Your task to perform on an android device: Add usb-a to usb-b to the cart on target.com Image 0: 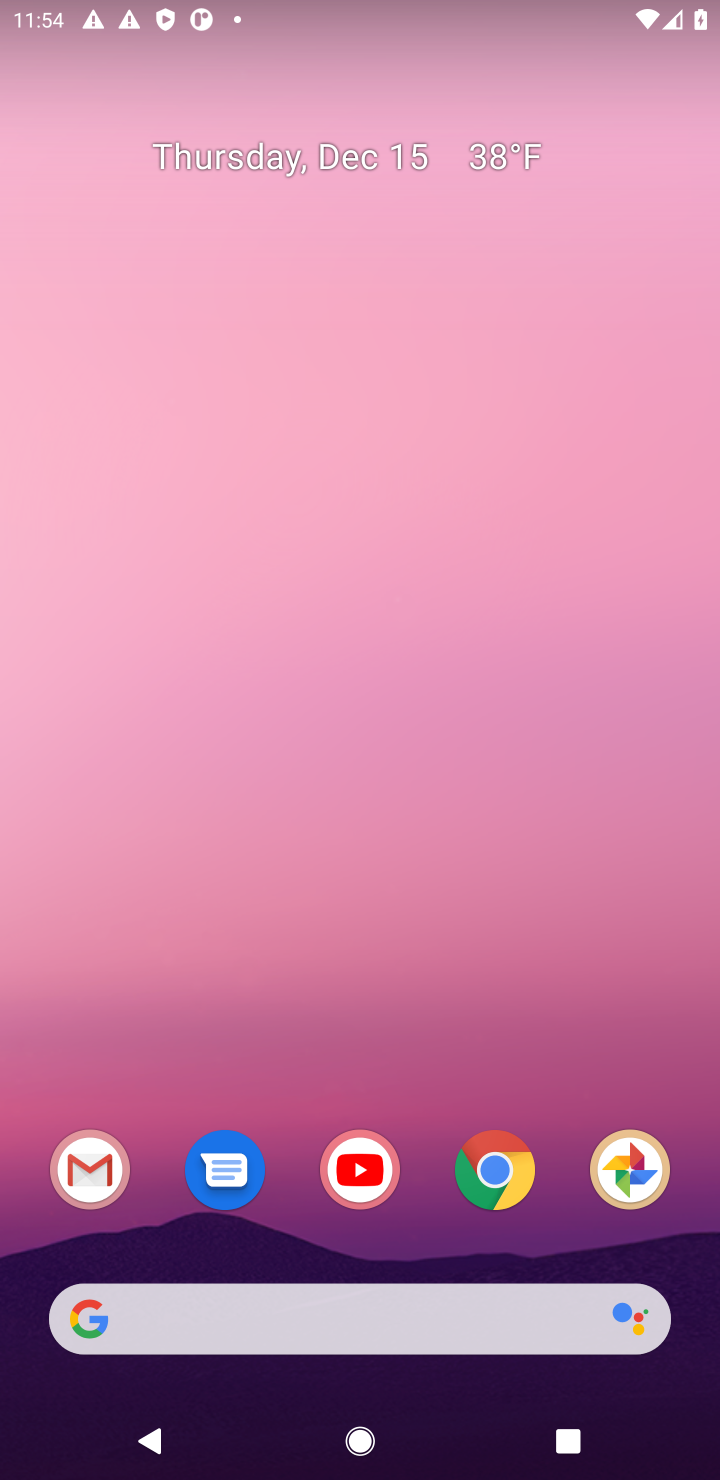
Step 0: click (487, 1177)
Your task to perform on an android device: Add usb-a to usb-b to the cart on target.com Image 1: 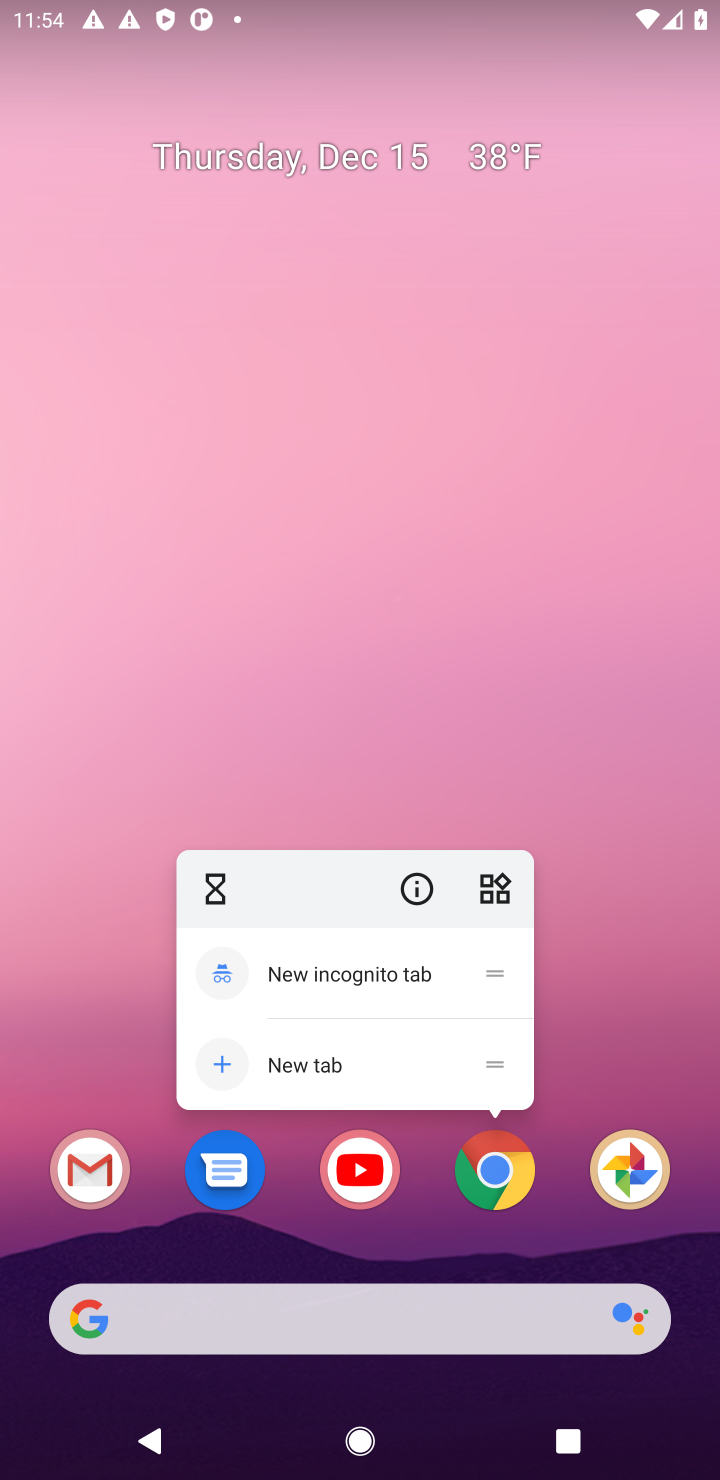
Step 1: click (488, 1175)
Your task to perform on an android device: Add usb-a to usb-b to the cart on target.com Image 2: 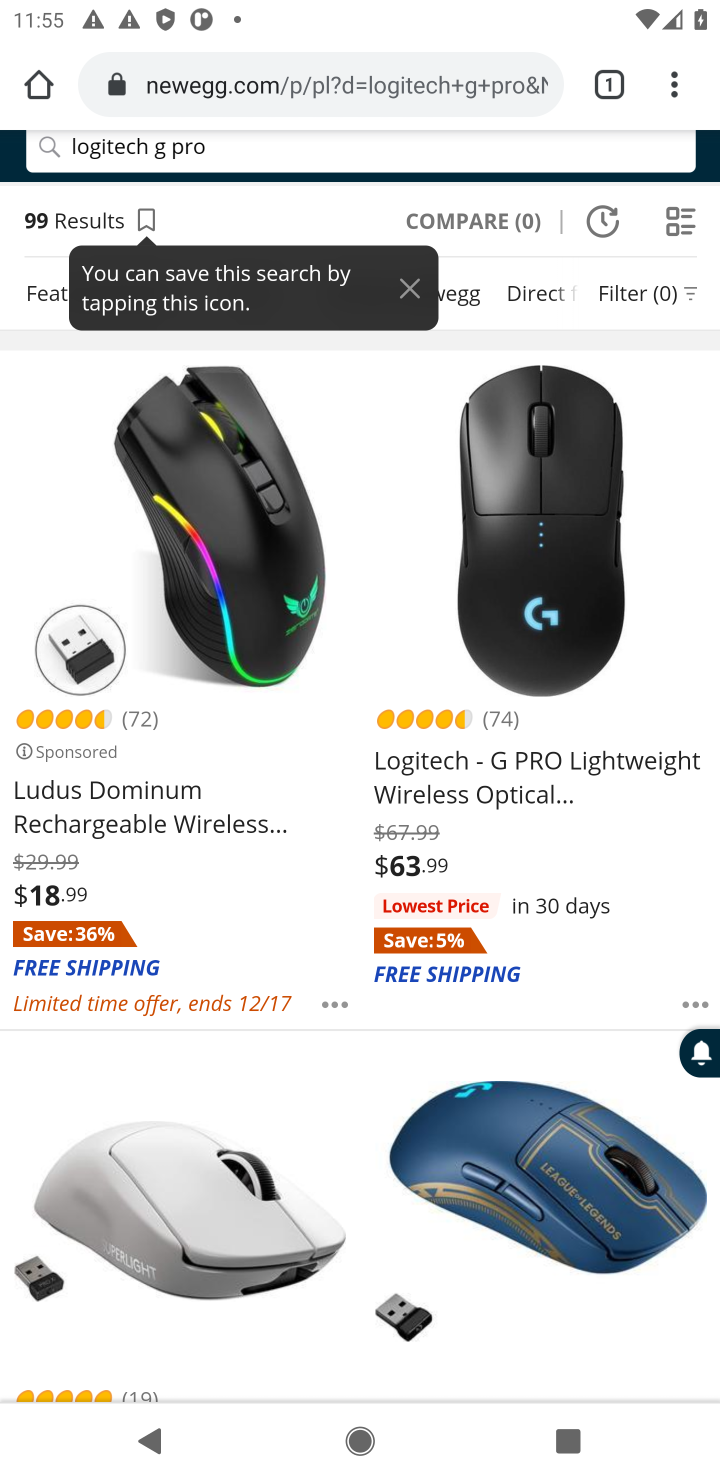
Step 2: click (269, 87)
Your task to perform on an android device: Add usb-a to usb-b to the cart on target.com Image 3: 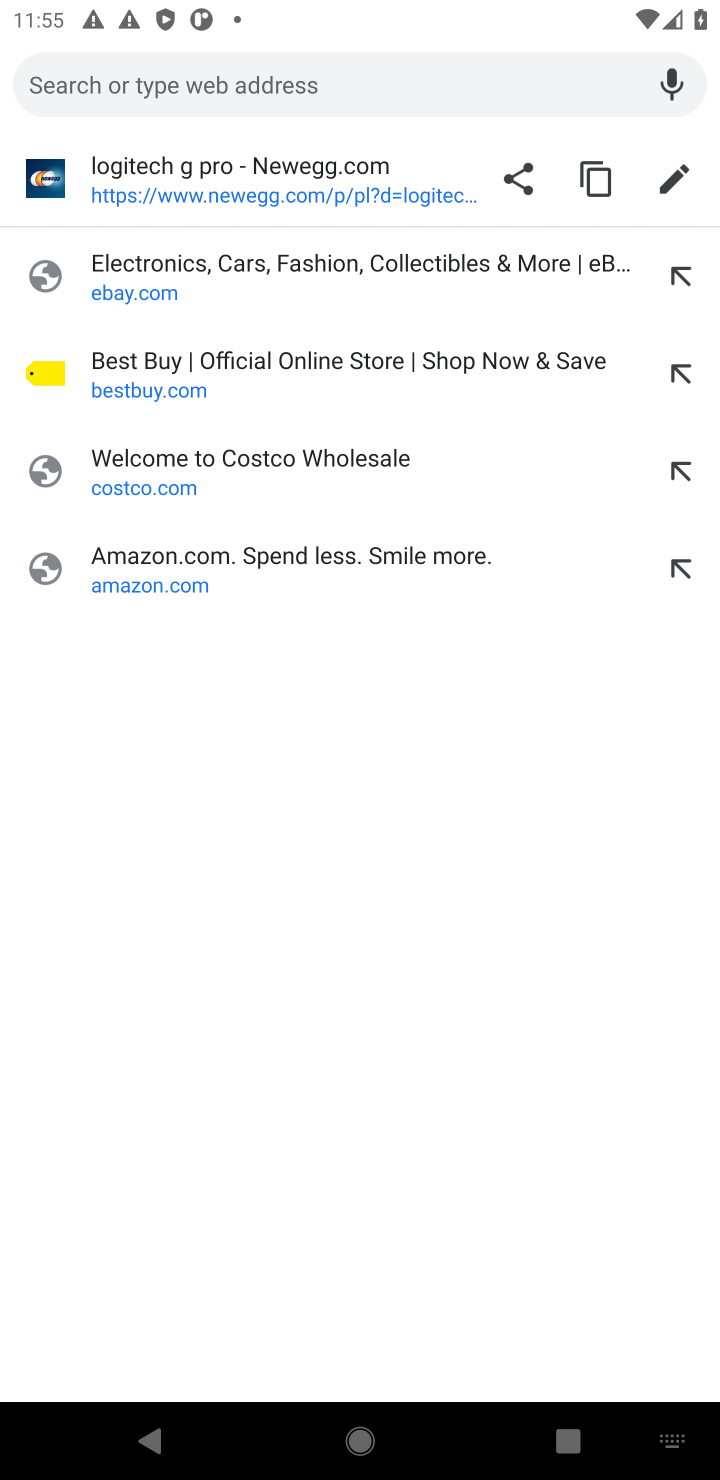
Step 3: type "target.com"
Your task to perform on an android device: Add usb-a to usb-b to the cart on target.com Image 4: 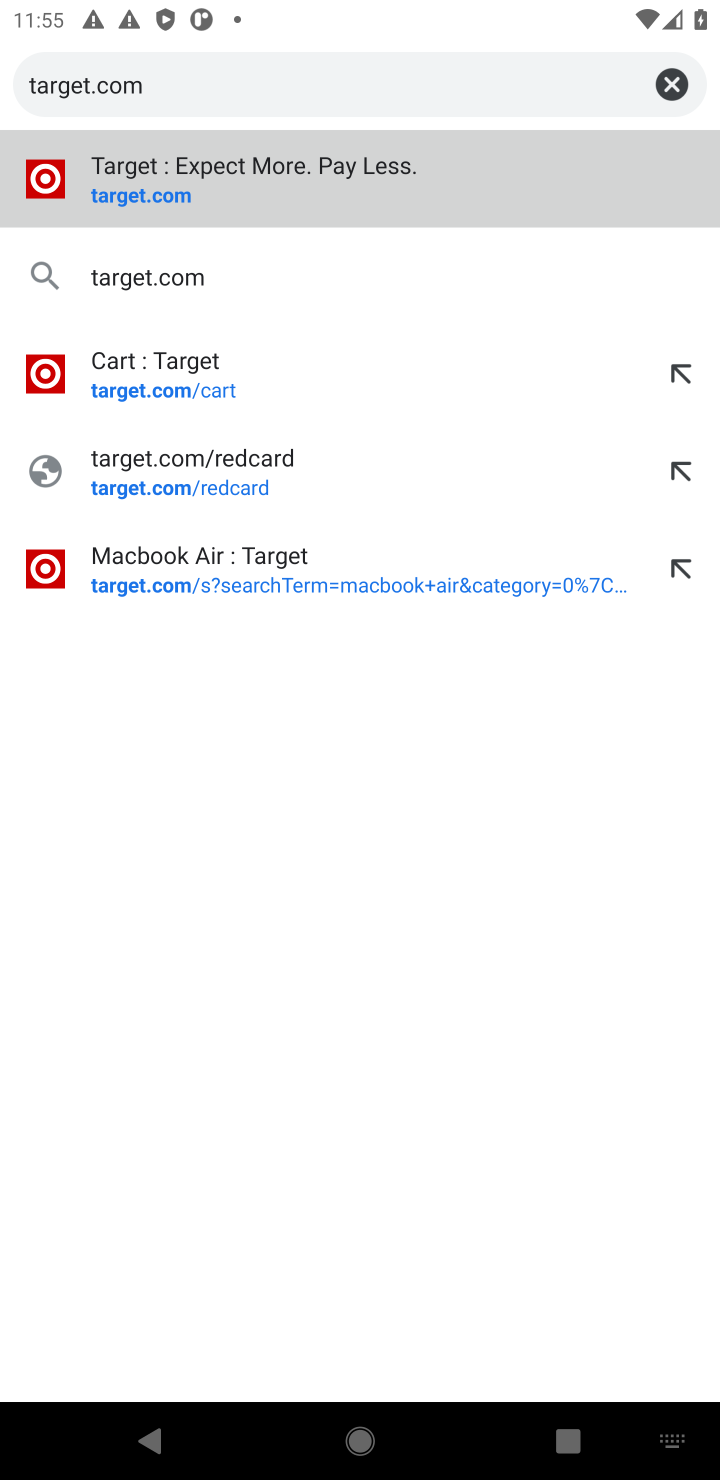
Step 4: click (112, 194)
Your task to perform on an android device: Add usb-a to usb-b to the cart on target.com Image 5: 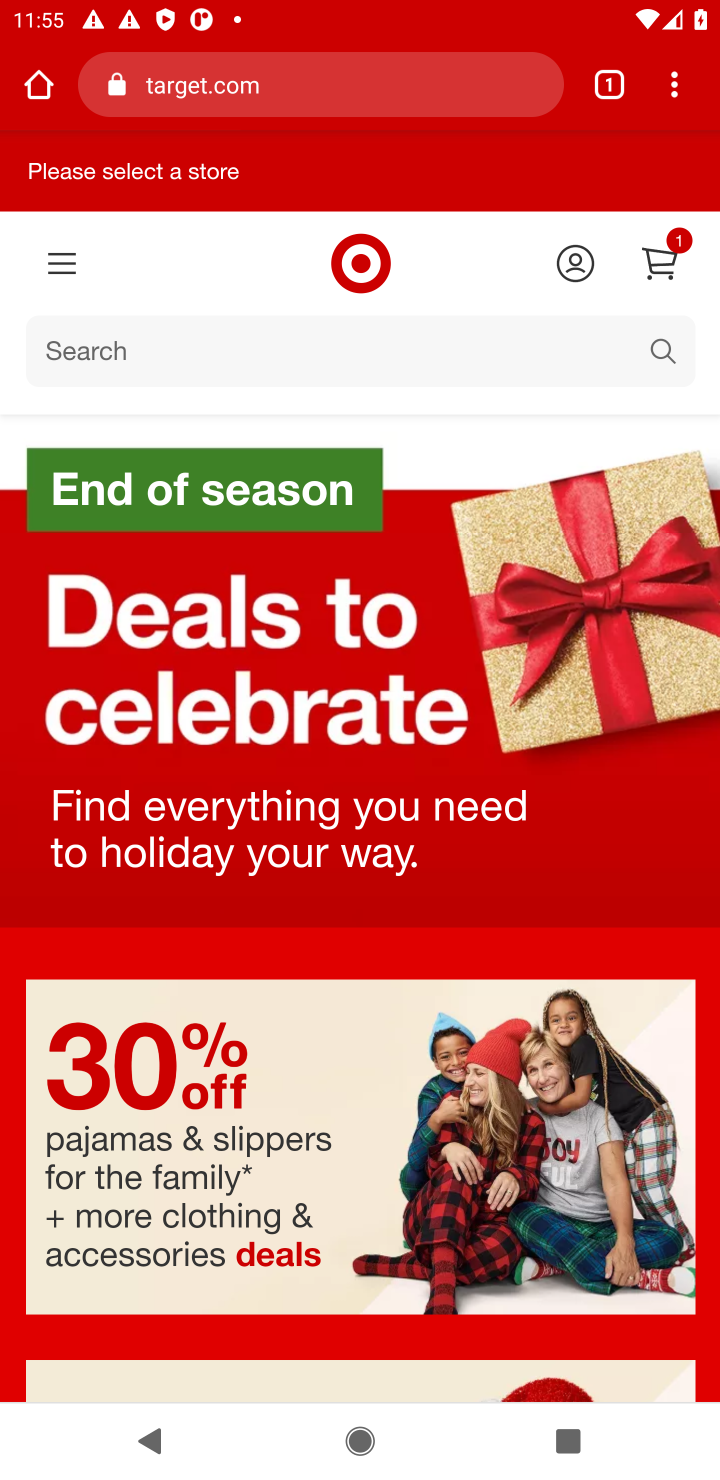
Step 5: click (40, 337)
Your task to perform on an android device: Add usb-a to usb-b to the cart on target.com Image 6: 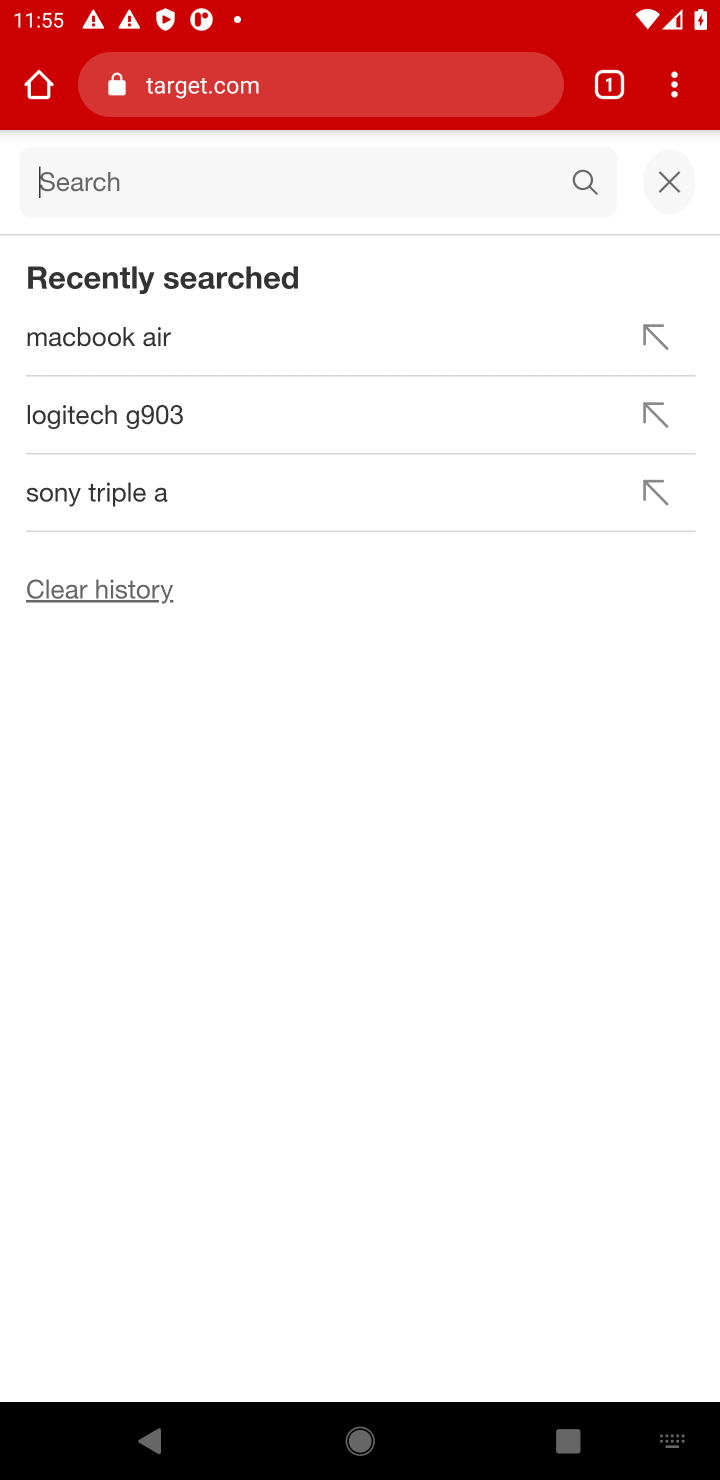
Step 6: type "usb-a to usb-b"
Your task to perform on an android device: Add usb-a to usb-b to the cart on target.com Image 7: 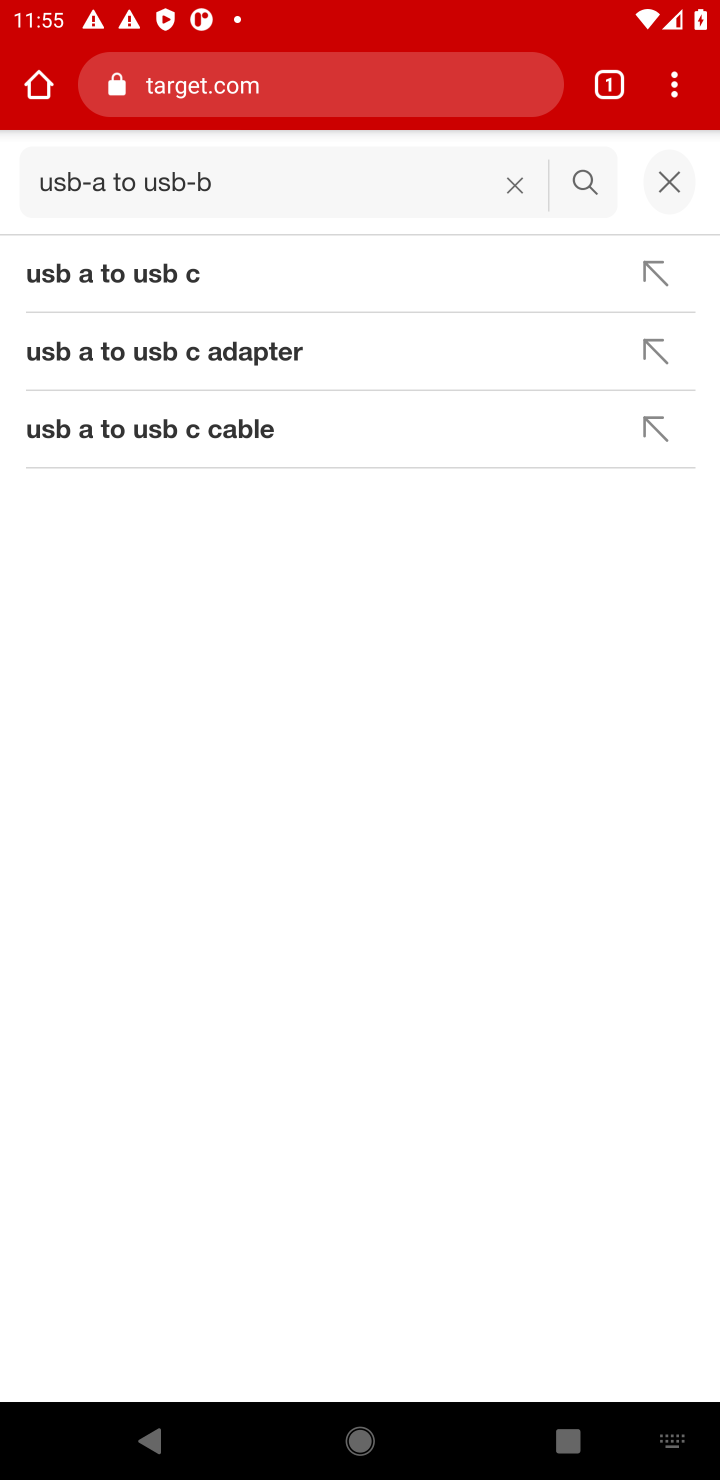
Step 7: click (574, 181)
Your task to perform on an android device: Add usb-a to usb-b to the cart on target.com Image 8: 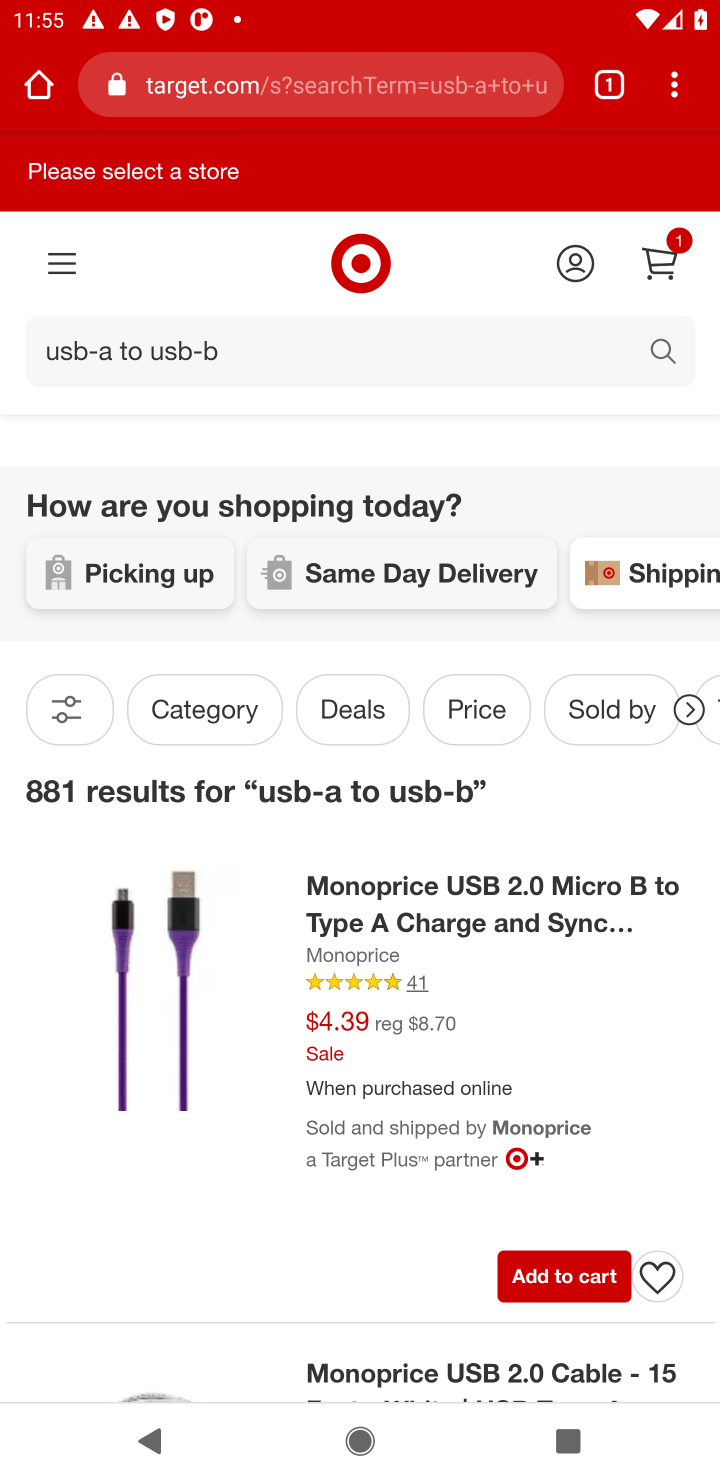
Step 8: drag from (255, 1055) to (278, 568)
Your task to perform on an android device: Add usb-a to usb-b to the cart on target.com Image 9: 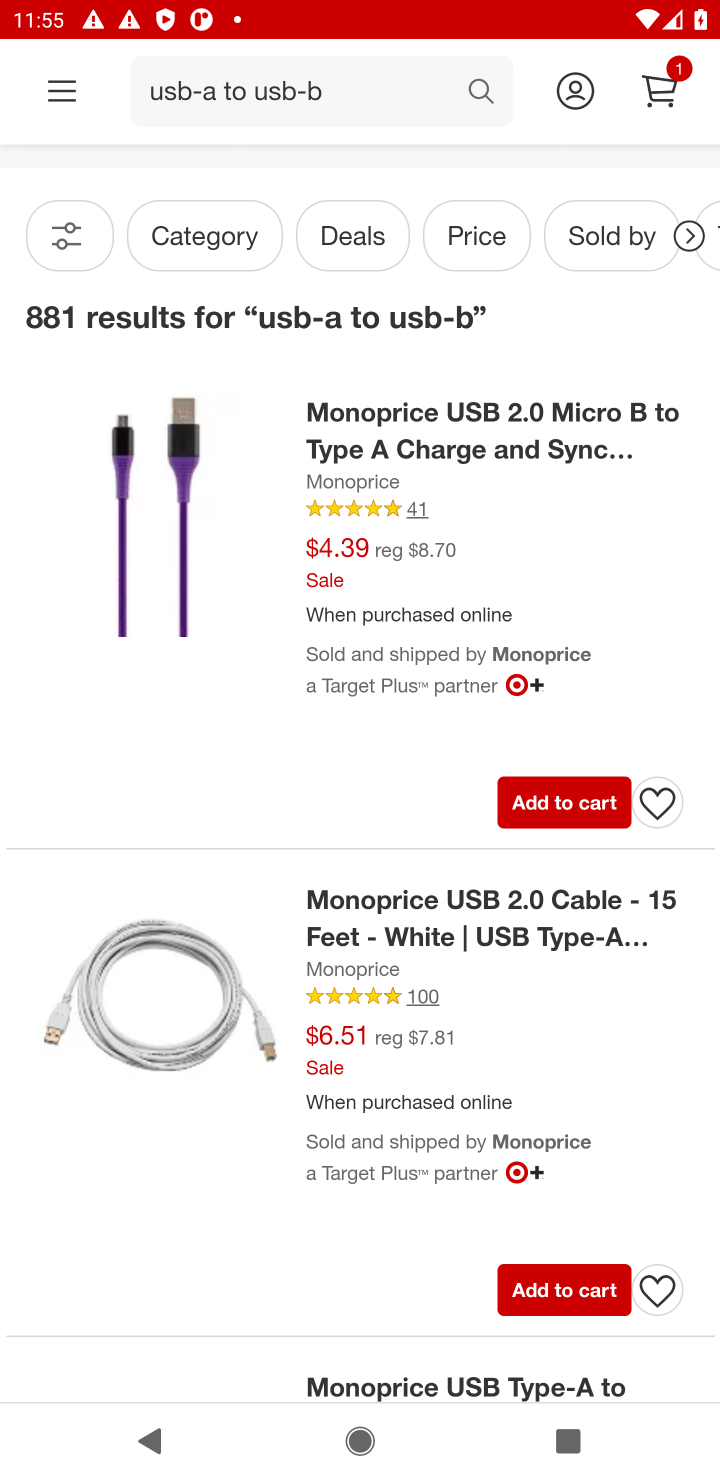
Step 9: click (511, 925)
Your task to perform on an android device: Add usb-a to usb-b to the cart on target.com Image 10: 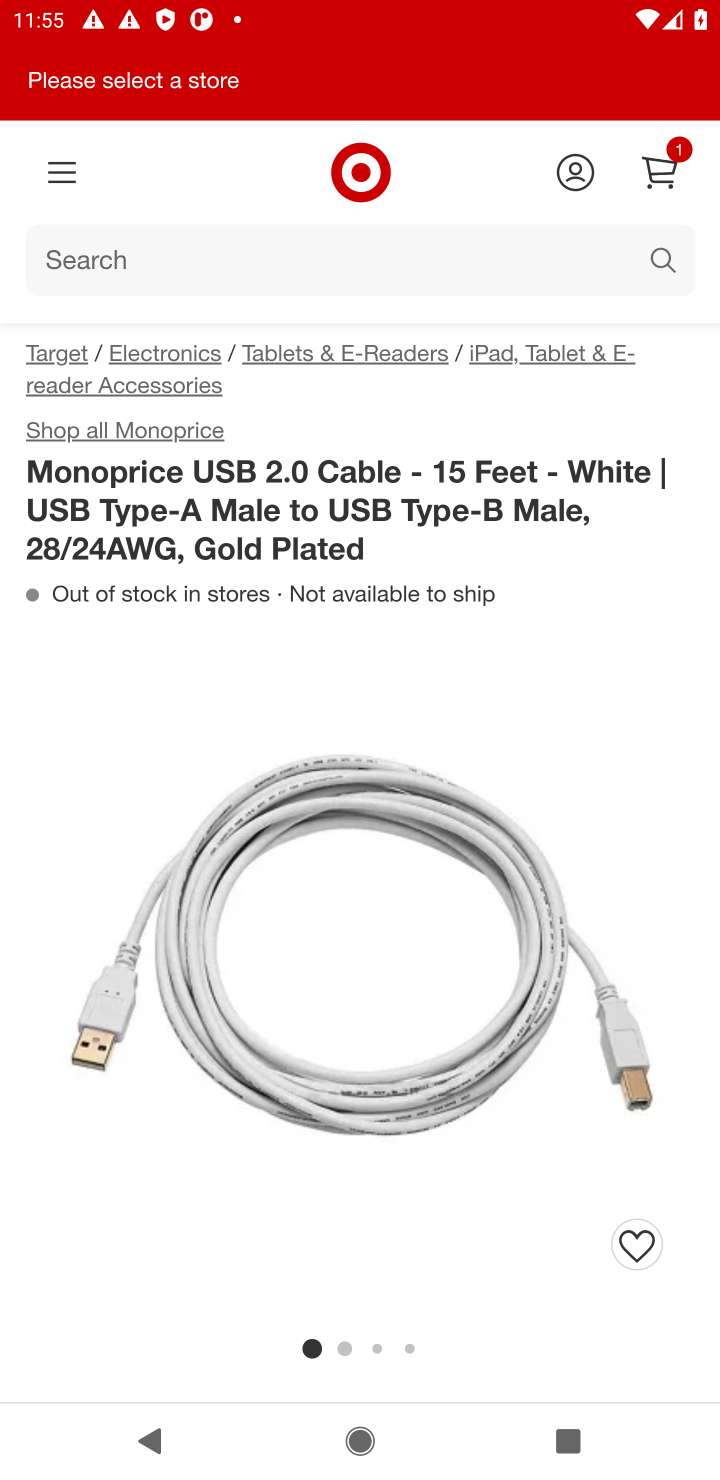
Step 10: drag from (417, 1065) to (440, 623)
Your task to perform on an android device: Add usb-a to usb-b to the cart on target.com Image 11: 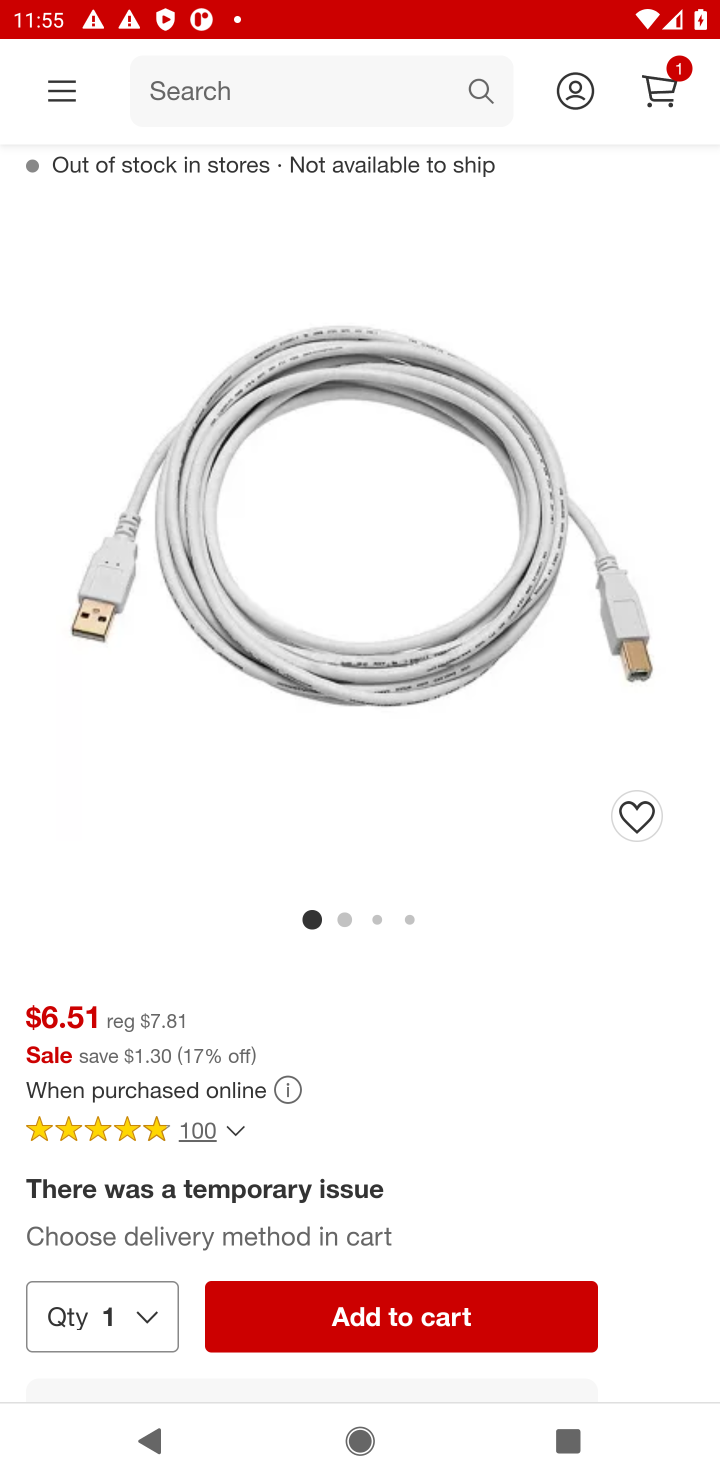
Step 11: click (405, 1308)
Your task to perform on an android device: Add usb-a to usb-b to the cart on target.com Image 12: 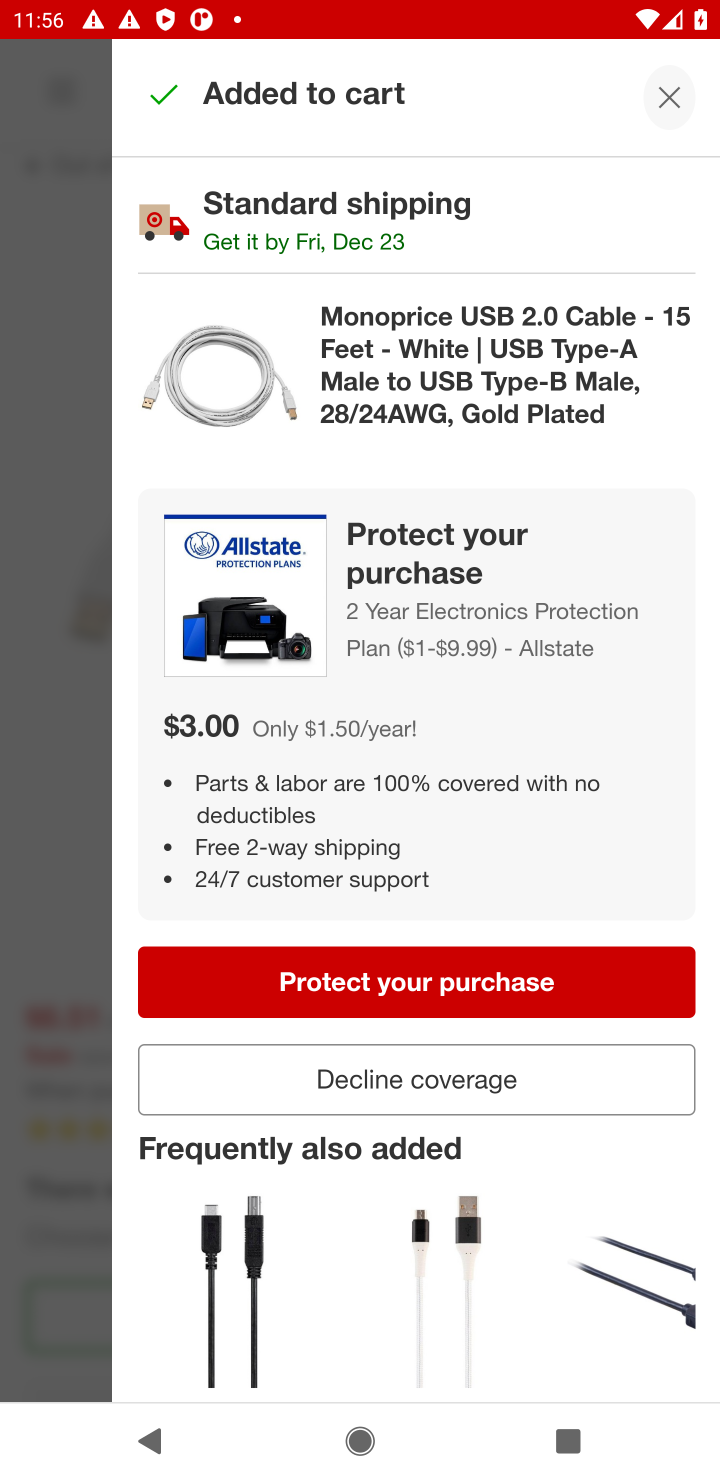
Step 12: task complete